Your task to perform on an android device: stop showing notifications on the lock screen Image 0: 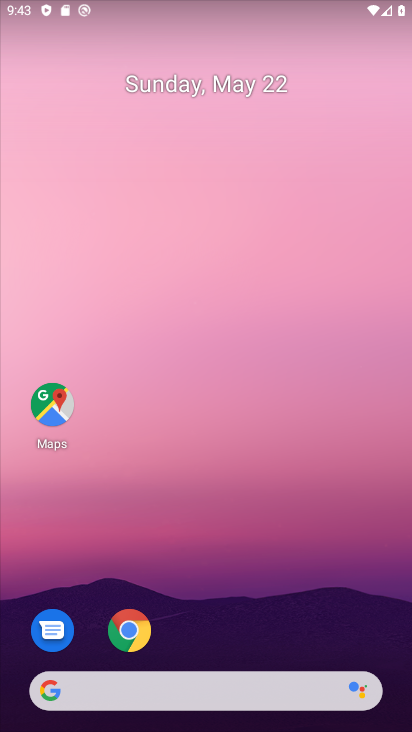
Step 0: drag from (395, 711) to (383, 250)
Your task to perform on an android device: stop showing notifications on the lock screen Image 1: 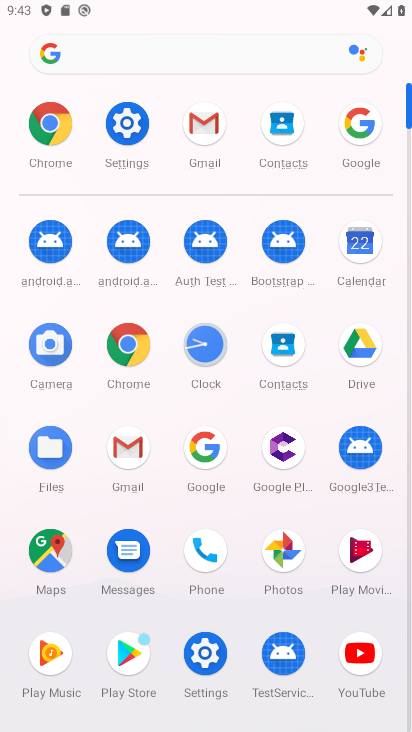
Step 1: click (205, 654)
Your task to perform on an android device: stop showing notifications on the lock screen Image 2: 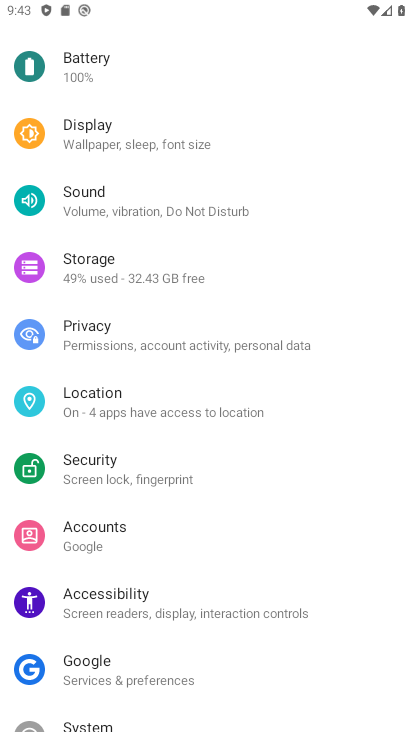
Step 2: drag from (247, 97) to (264, 387)
Your task to perform on an android device: stop showing notifications on the lock screen Image 3: 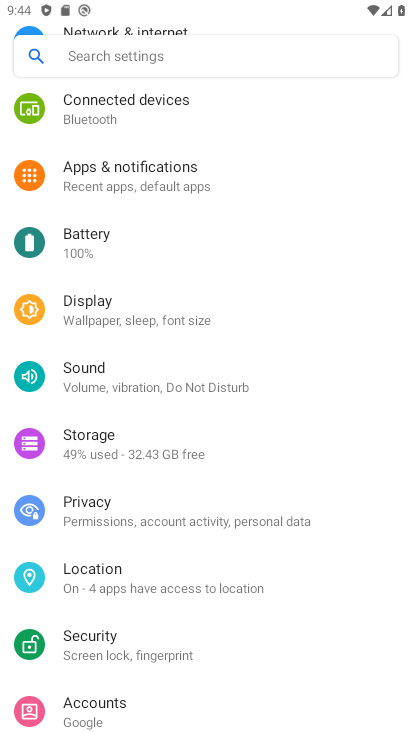
Step 3: click (125, 185)
Your task to perform on an android device: stop showing notifications on the lock screen Image 4: 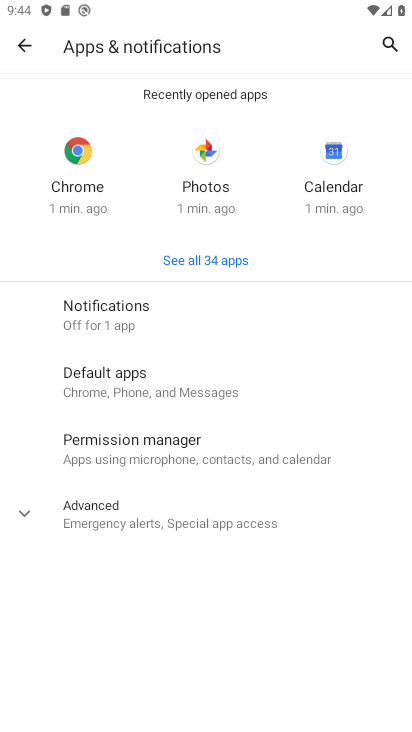
Step 4: click (106, 314)
Your task to perform on an android device: stop showing notifications on the lock screen Image 5: 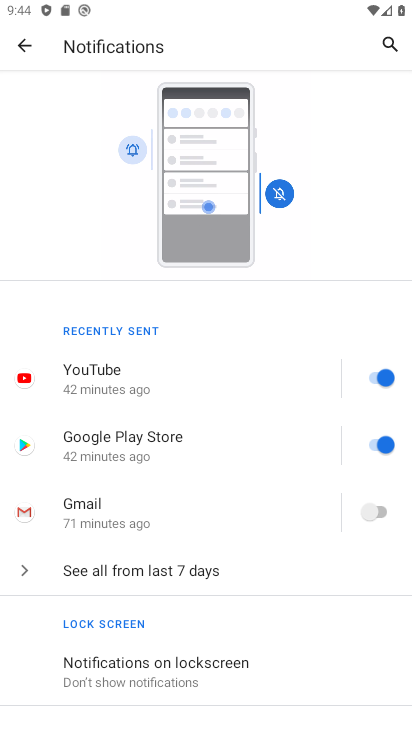
Step 5: click (157, 678)
Your task to perform on an android device: stop showing notifications on the lock screen Image 6: 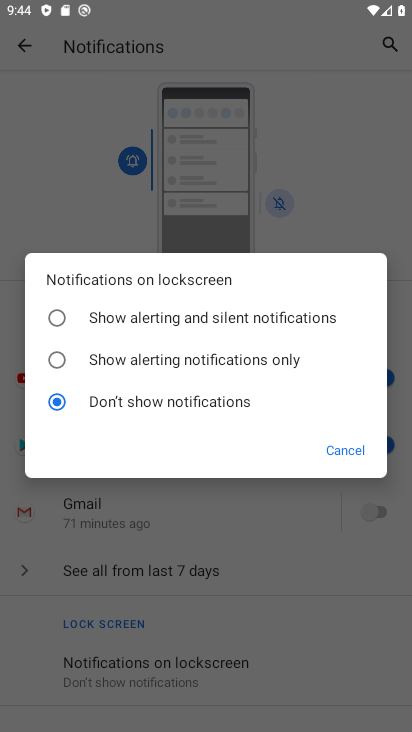
Step 6: task complete